Your task to perform on an android device: Go to sound settings Image 0: 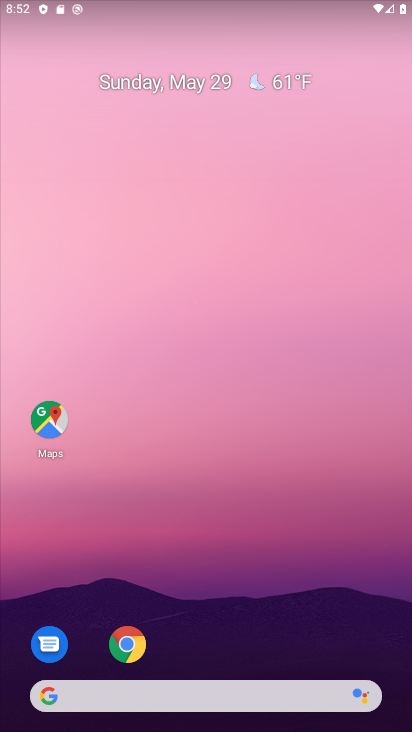
Step 0: drag from (204, 688) to (203, 220)
Your task to perform on an android device: Go to sound settings Image 1: 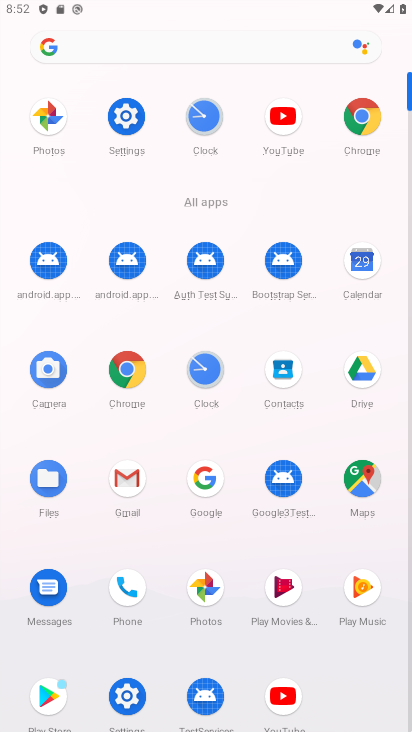
Step 1: click (137, 135)
Your task to perform on an android device: Go to sound settings Image 2: 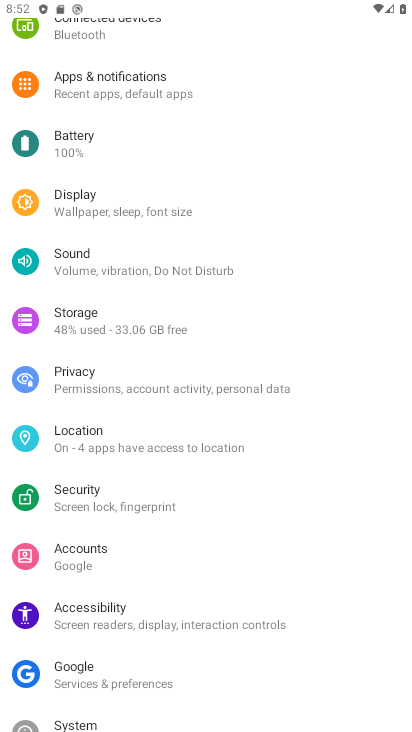
Step 2: click (107, 267)
Your task to perform on an android device: Go to sound settings Image 3: 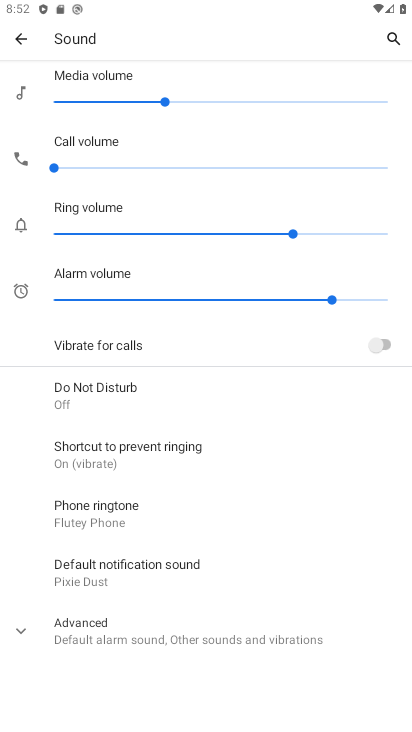
Step 3: task complete